Your task to perform on an android device: Open Google Chrome and click the shortcut for Amazon.com Image 0: 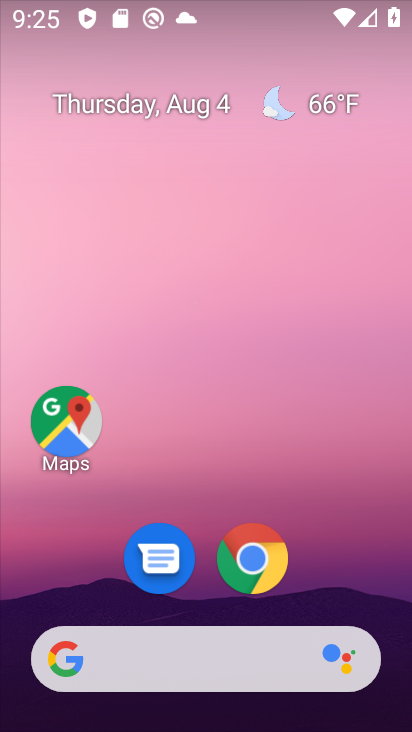
Step 0: drag from (354, 561) to (304, 1)
Your task to perform on an android device: Open Google Chrome and click the shortcut for Amazon.com Image 1: 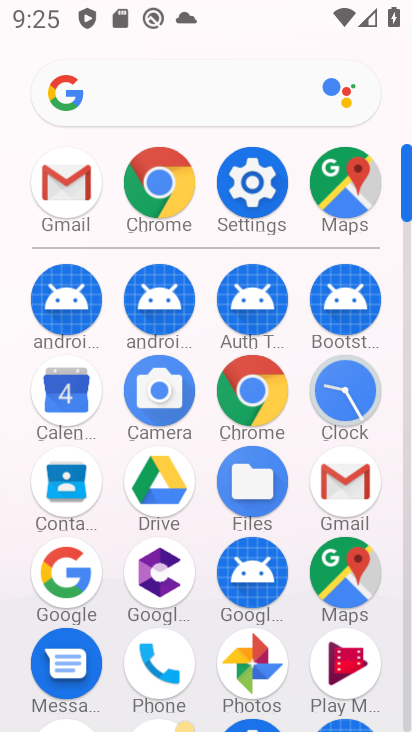
Step 1: click (259, 388)
Your task to perform on an android device: Open Google Chrome and click the shortcut for Amazon.com Image 2: 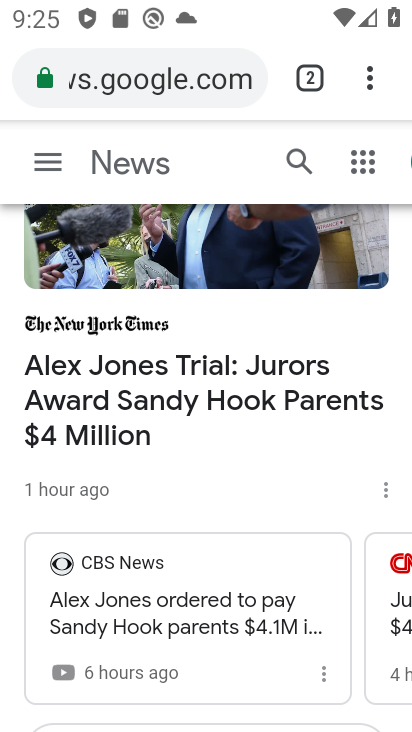
Step 2: click (202, 84)
Your task to perform on an android device: Open Google Chrome and click the shortcut for Amazon.com Image 3: 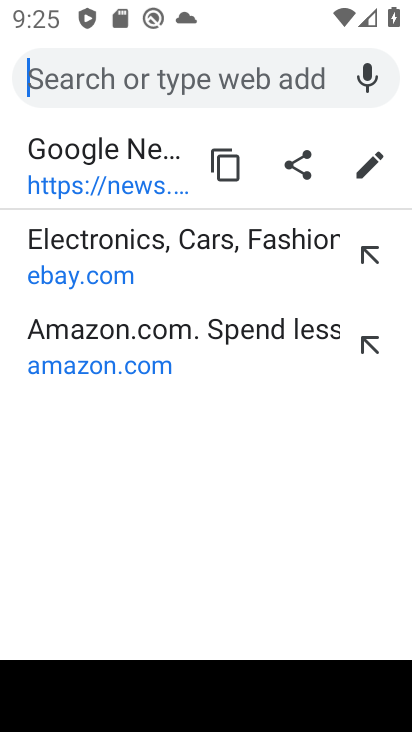
Step 3: click (122, 363)
Your task to perform on an android device: Open Google Chrome and click the shortcut for Amazon.com Image 4: 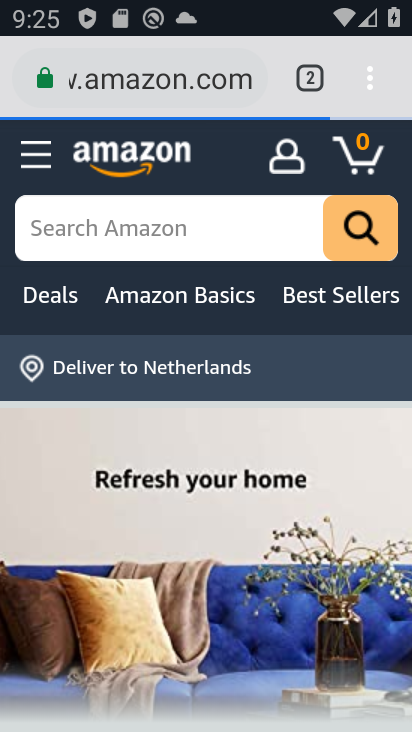
Step 4: drag from (380, 69) to (171, 181)
Your task to perform on an android device: Open Google Chrome and click the shortcut for Amazon.com Image 5: 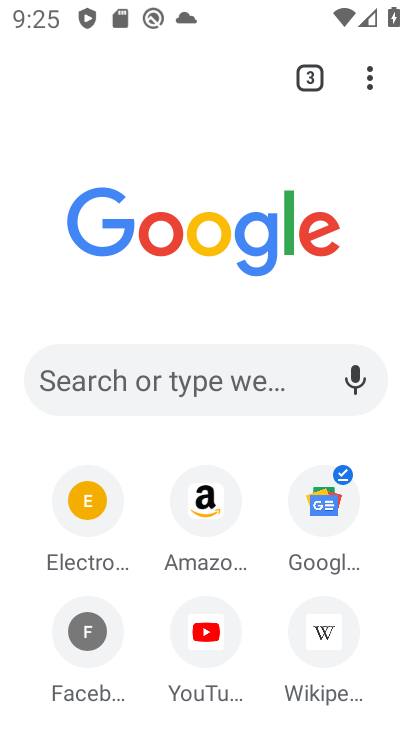
Step 5: click (214, 516)
Your task to perform on an android device: Open Google Chrome and click the shortcut for Amazon.com Image 6: 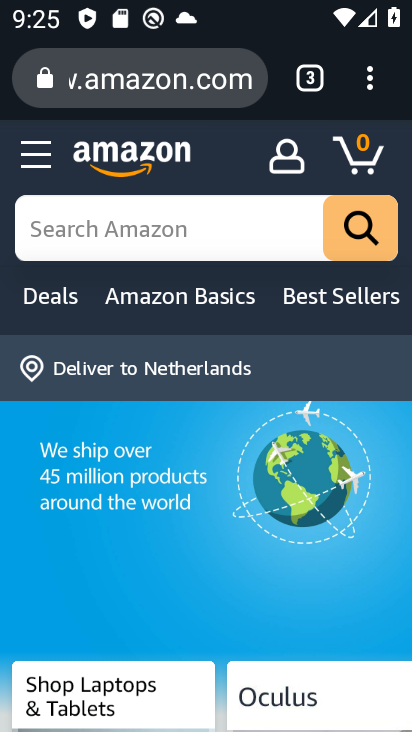
Step 6: task complete